Your task to perform on an android device: toggle show notifications on the lock screen Image 0: 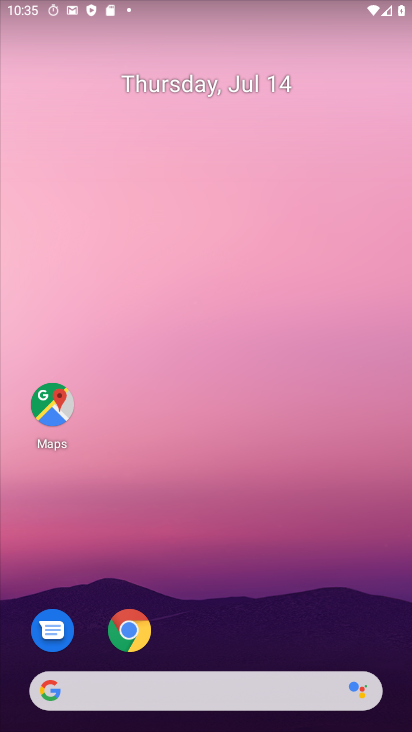
Step 0: drag from (226, 624) to (208, 99)
Your task to perform on an android device: toggle show notifications on the lock screen Image 1: 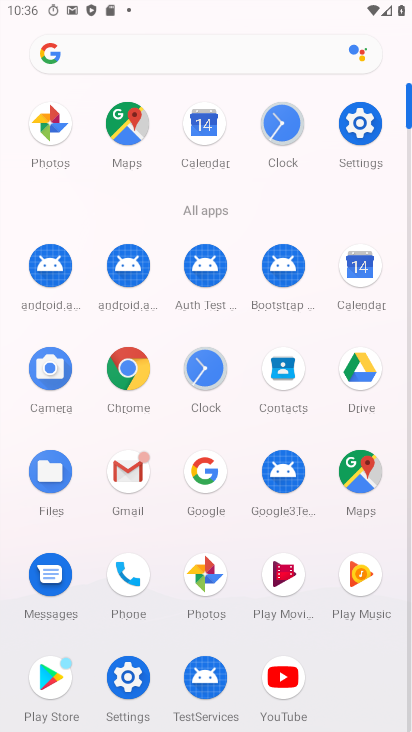
Step 1: click (123, 665)
Your task to perform on an android device: toggle show notifications on the lock screen Image 2: 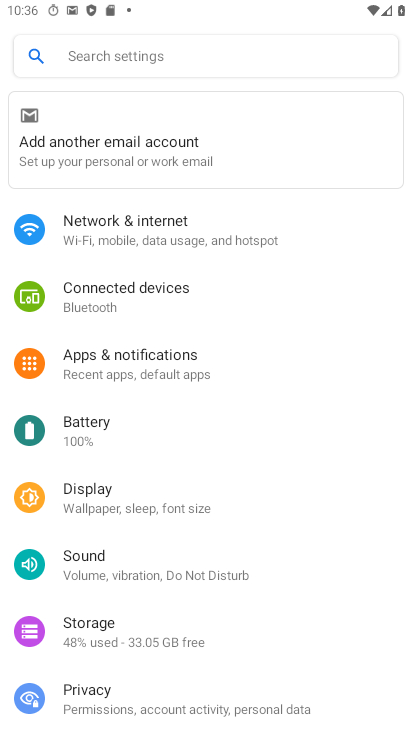
Step 2: click (125, 370)
Your task to perform on an android device: toggle show notifications on the lock screen Image 3: 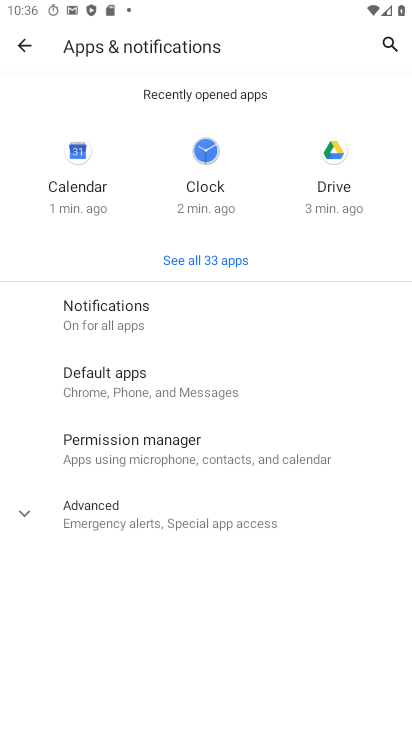
Step 3: click (105, 305)
Your task to perform on an android device: toggle show notifications on the lock screen Image 4: 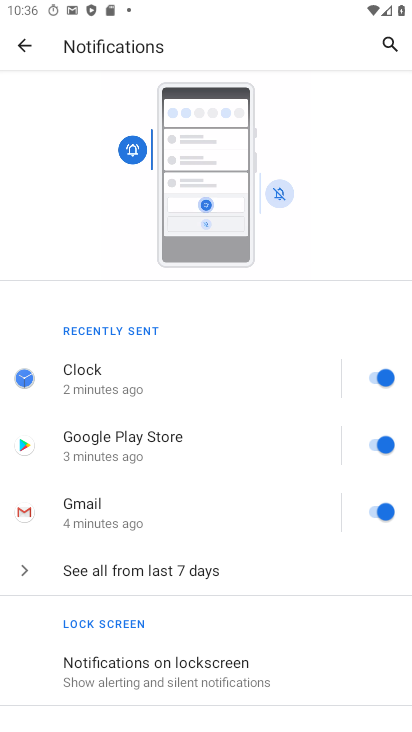
Step 4: click (211, 672)
Your task to perform on an android device: toggle show notifications on the lock screen Image 5: 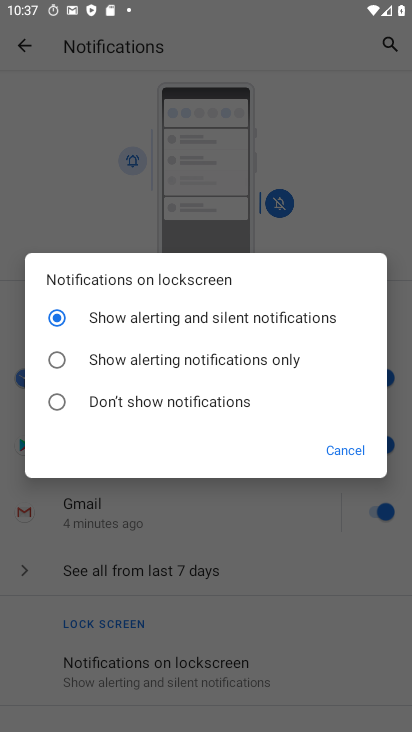
Step 5: click (217, 310)
Your task to perform on an android device: toggle show notifications on the lock screen Image 6: 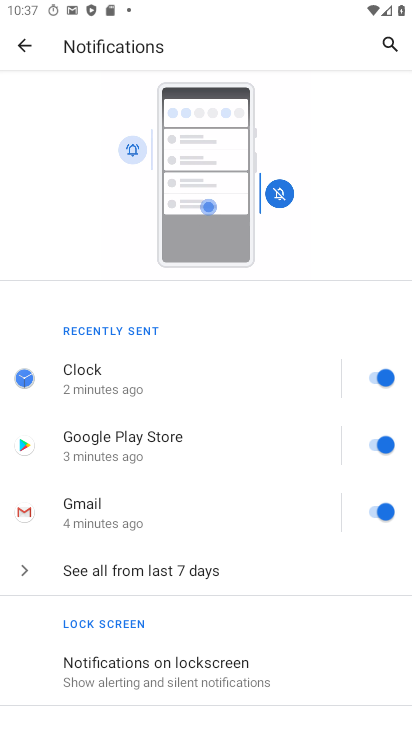
Step 6: task complete